Your task to perform on an android device: open the mobile data screen to see how much data has been used Image 0: 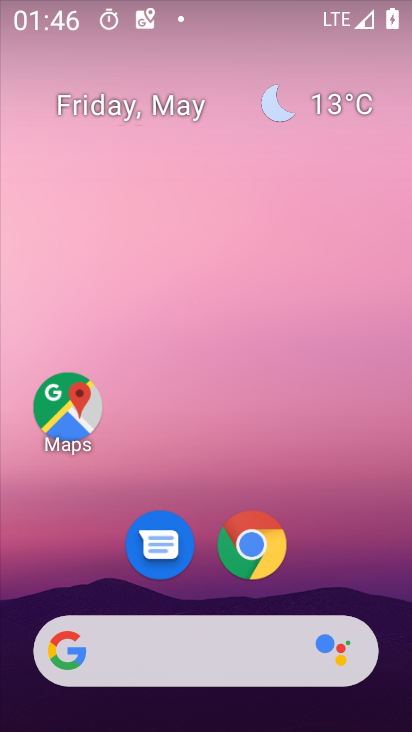
Step 0: drag from (291, 543) to (192, 64)
Your task to perform on an android device: open the mobile data screen to see how much data has been used Image 1: 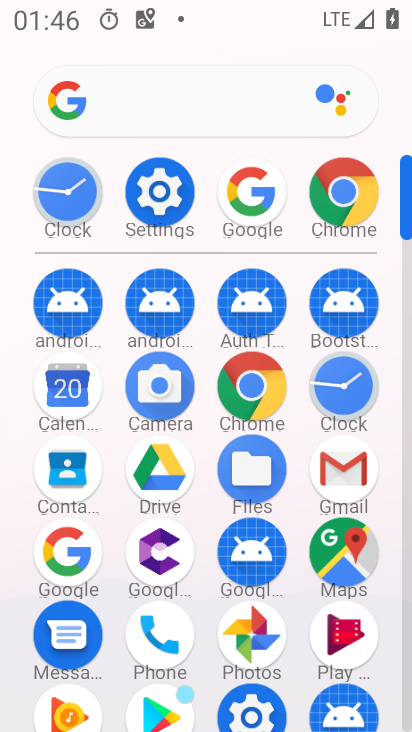
Step 1: click (157, 193)
Your task to perform on an android device: open the mobile data screen to see how much data has been used Image 2: 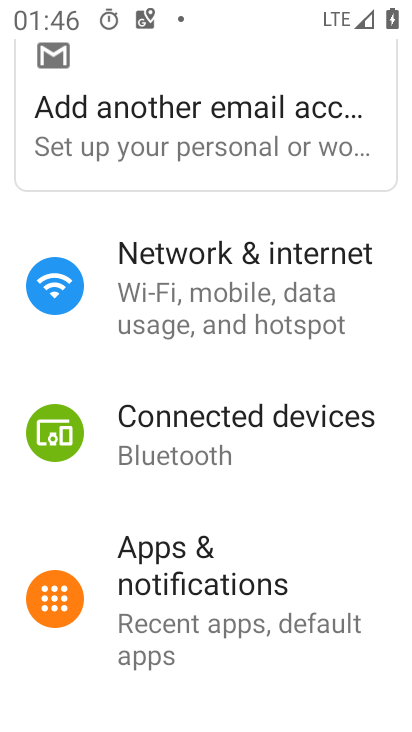
Step 2: click (160, 300)
Your task to perform on an android device: open the mobile data screen to see how much data has been used Image 3: 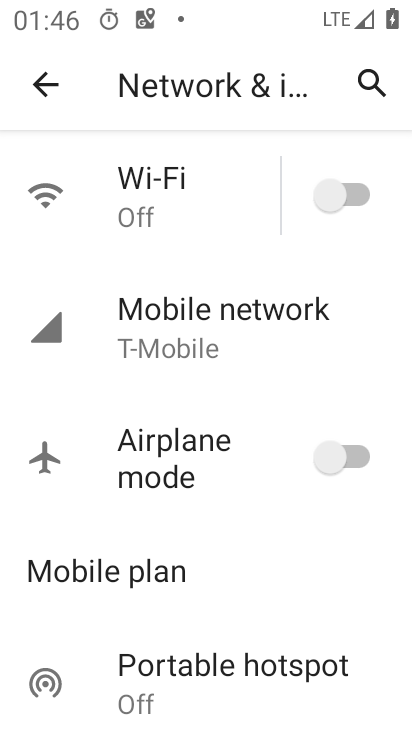
Step 3: drag from (204, 595) to (197, 187)
Your task to perform on an android device: open the mobile data screen to see how much data has been used Image 4: 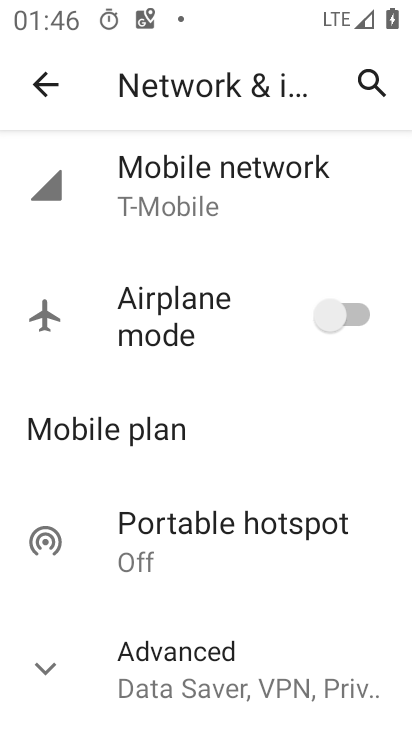
Step 4: click (217, 200)
Your task to perform on an android device: open the mobile data screen to see how much data has been used Image 5: 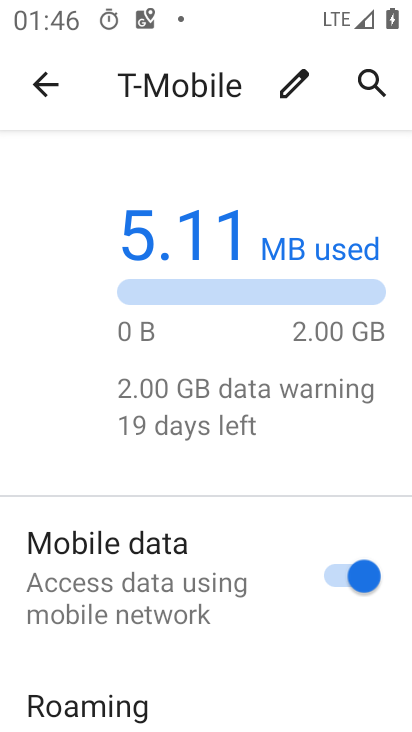
Step 5: task complete